Your task to perform on an android device: Open Reddit.com Image 0: 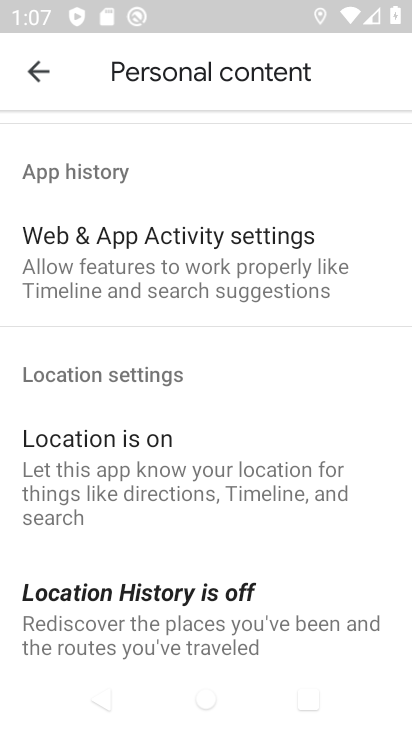
Step 0: press home button
Your task to perform on an android device: Open Reddit.com Image 1: 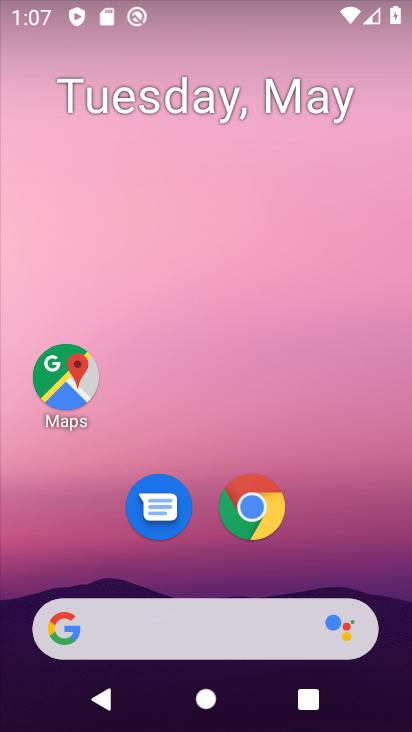
Step 1: click (243, 489)
Your task to perform on an android device: Open Reddit.com Image 2: 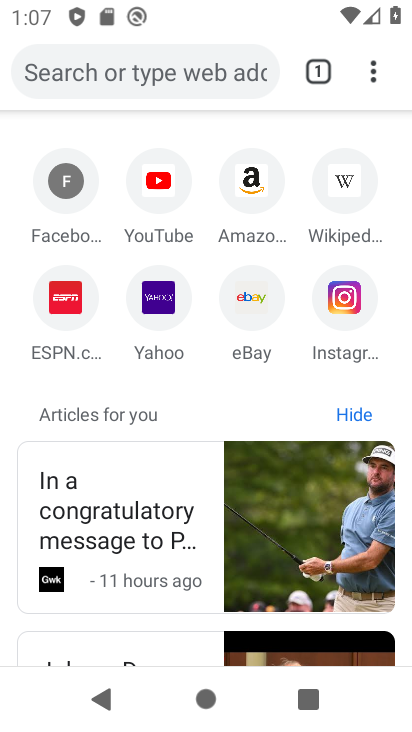
Step 2: click (147, 60)
Your task to perform on an android device: Open Reddit.com Image 3: 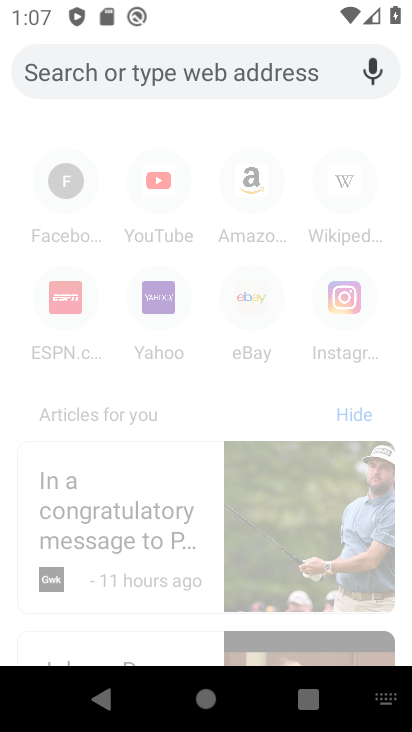
Step 3: type "Reddit.com"
Your task to perform on an android device: Open Reddit.com Image 4: 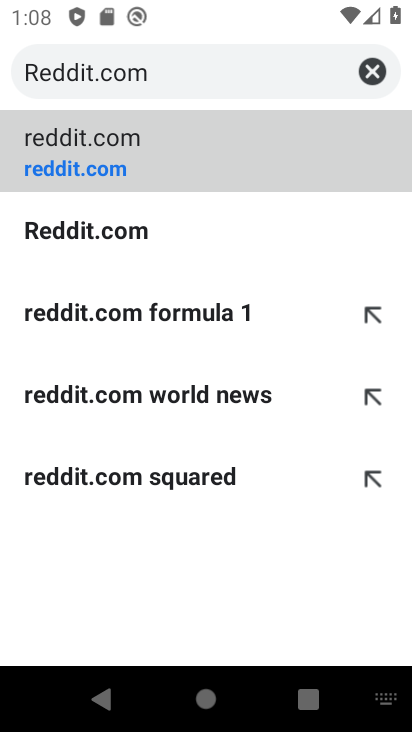
Step 4: click (97, 163)
Your task to perform on an android device: Open Reddit.com Image 5: 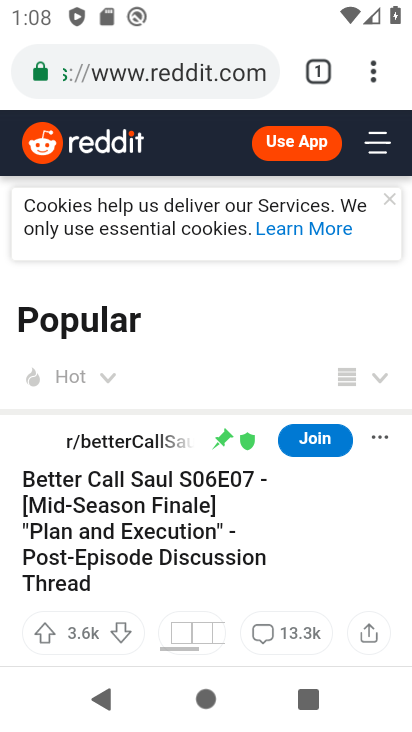
Step 5: task complete